Your task to perform on an android device: turn on sleep mode Image 0: 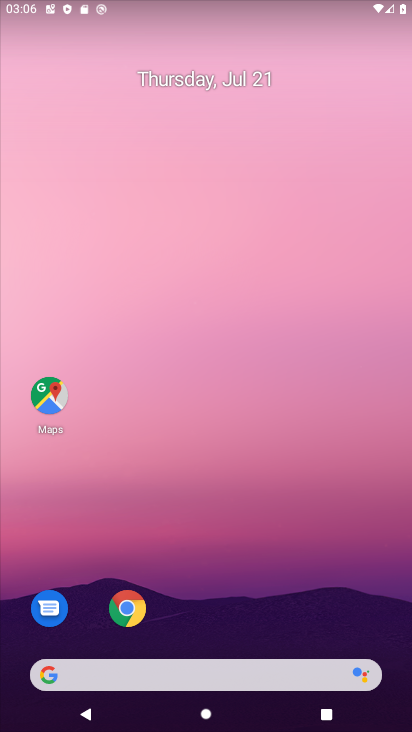
Step 0: drag from (196, 691) to (252, 2)
Your task to perform on an android device: turn on sleep mode Image 1: 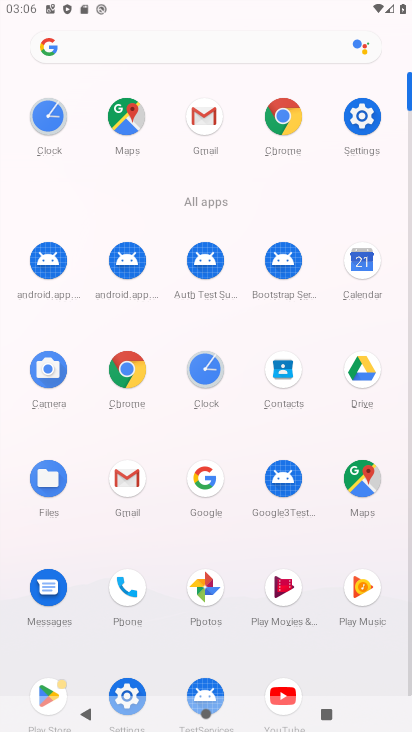
Step 1: click (349, 108)
Your task to perform on an android device: turn on sleep mode Image 2: 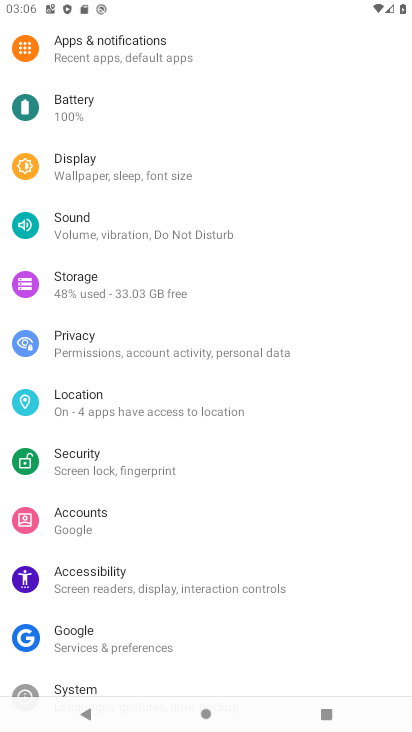
Step 2: click (113, 217)
Your task to perform on an android device: turn on sleep mode Image 3: 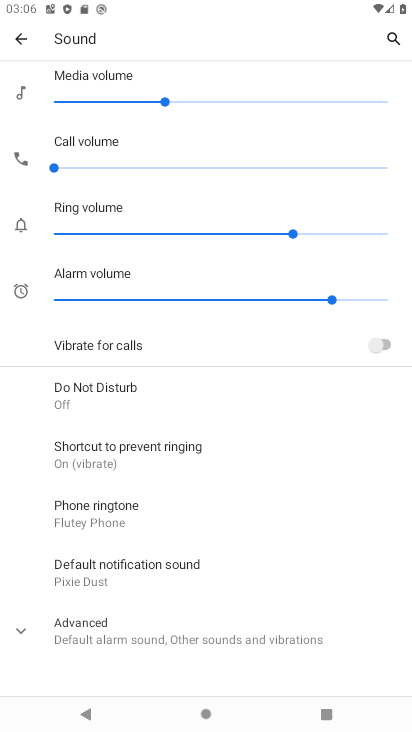
Step 3: task complete